Your task to perform on an android device: install app "Speedtest by Ookla" Image 0: 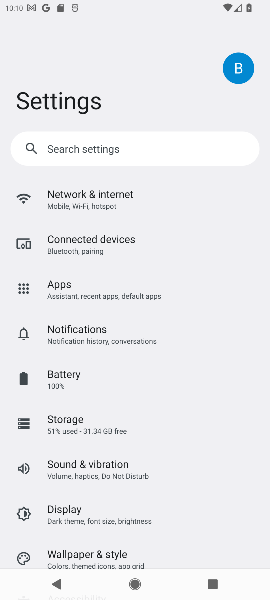
Step 0: press home button
Your task to perform on an android device: install app "Speedtest by Ookla" Image 1: 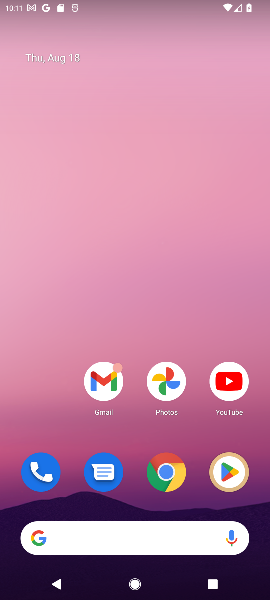
Step 1: click (234, 459)
Your task to perform on an android device: install app "Speedtest by Ookla" Image 2: 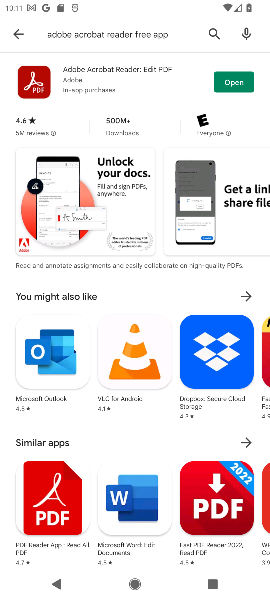
Step 2: click (210, 40)
Your task to perform on an android device: install app "Speedtest by Ookla" Image 3: 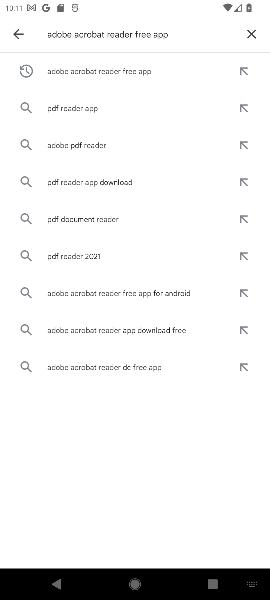
Step 3: click (252, 31)
Your task to perform on an android device: install app "Speedtest by Ookla" Image 4: 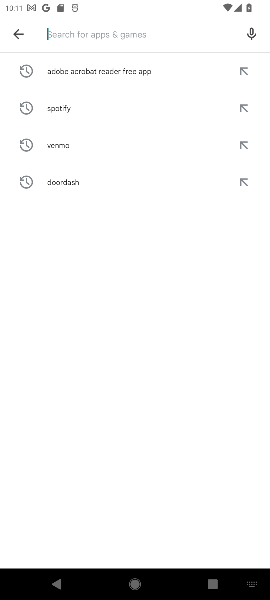
Step 4: type "speedtest by ookla"
Your task to perform on an android device: install app "Speedtest by Ookla" Image 5: 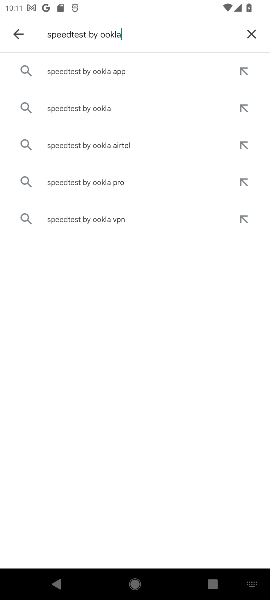
Step 5: click (100, 69)
Your task to perform on an android device: install app "Speedtest by Ookla" Image 6: 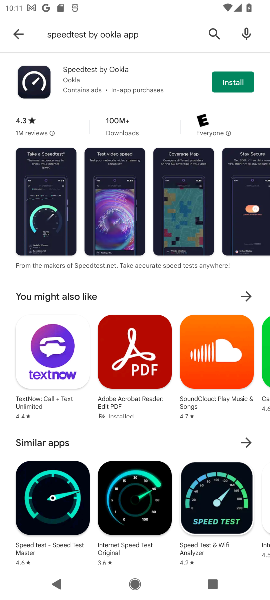
Step 6: click (244, 75)
Your task to perform on an android device: install app "Speedtest by Ookla" Image 7: 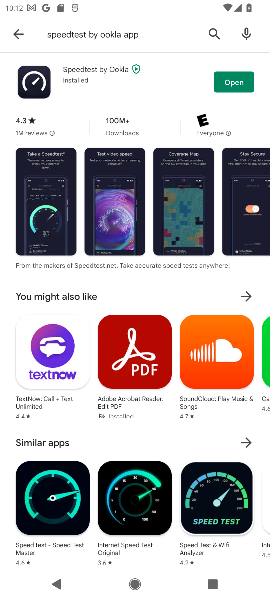
Step 7: task complete